Your task to perform on an android device: turn on sleep mode Image 0: 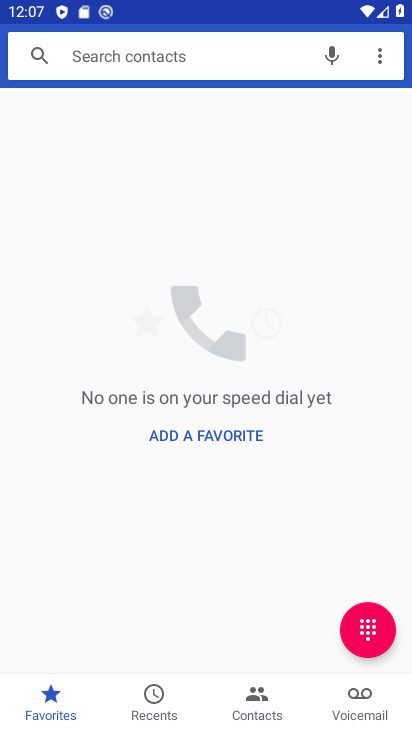
Step 0: press home button
Your task to perform on an android device: turn on sleep mode Image 1: 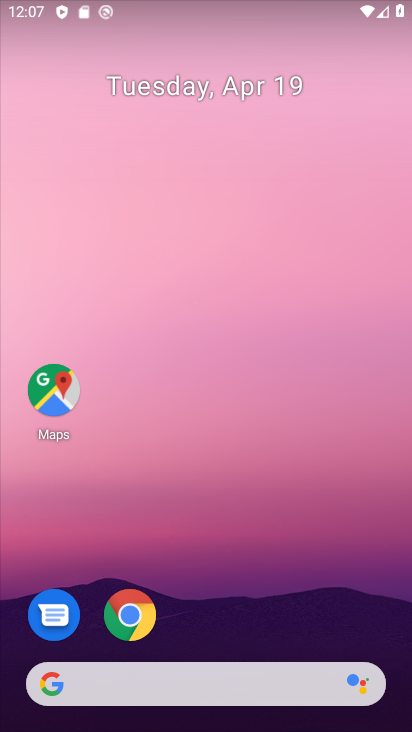
Step 1: task complete